Your task to perform on an android device: open a bookmark in the chrome app Image 0: 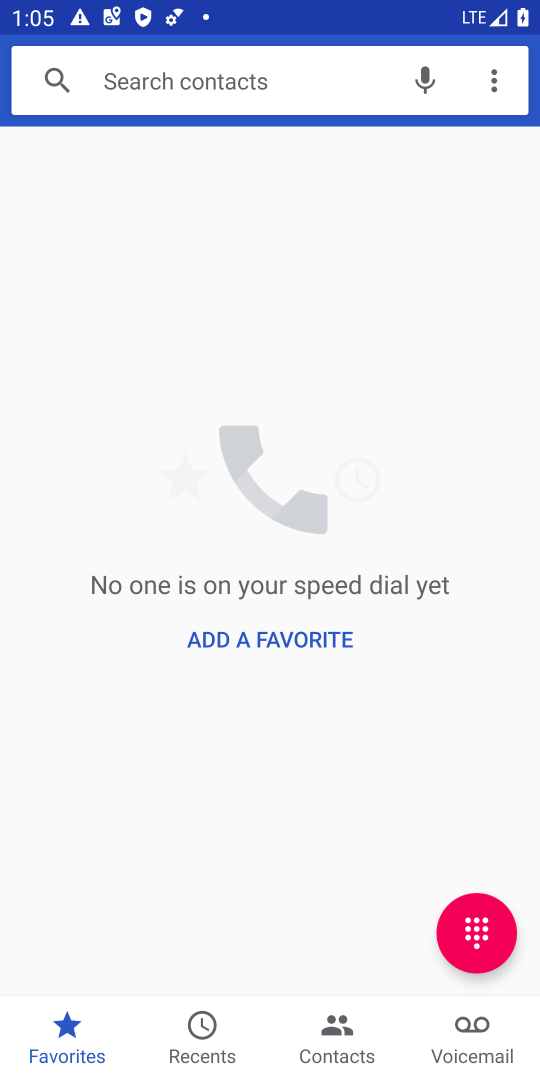
Step 0: press home button
Your task to perform on an android device: open a bookmark in the chrome app Image 1: 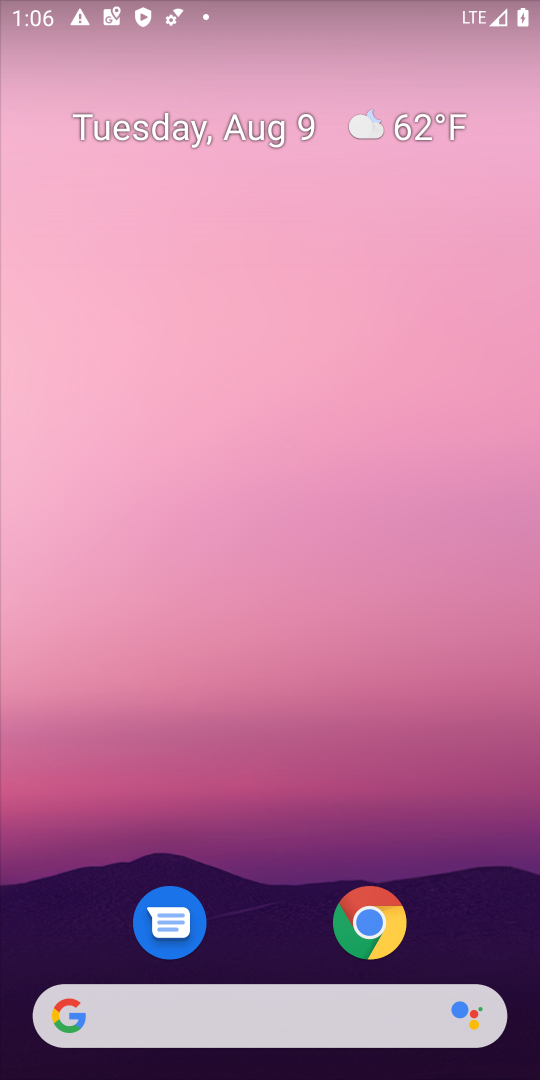
Step 1: click (388, 933)
Your task to perform on an android device: open a bookmark in the chrome app Image 2: 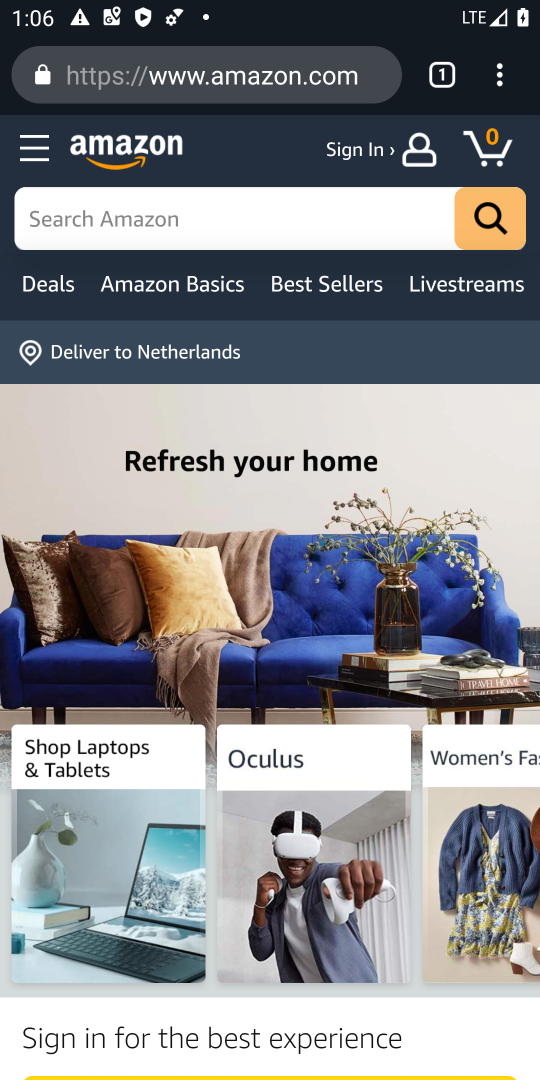
Step 2: click (499, 67)
Your task to perform on an android device: open a bookmark in the chrome app Image 3: 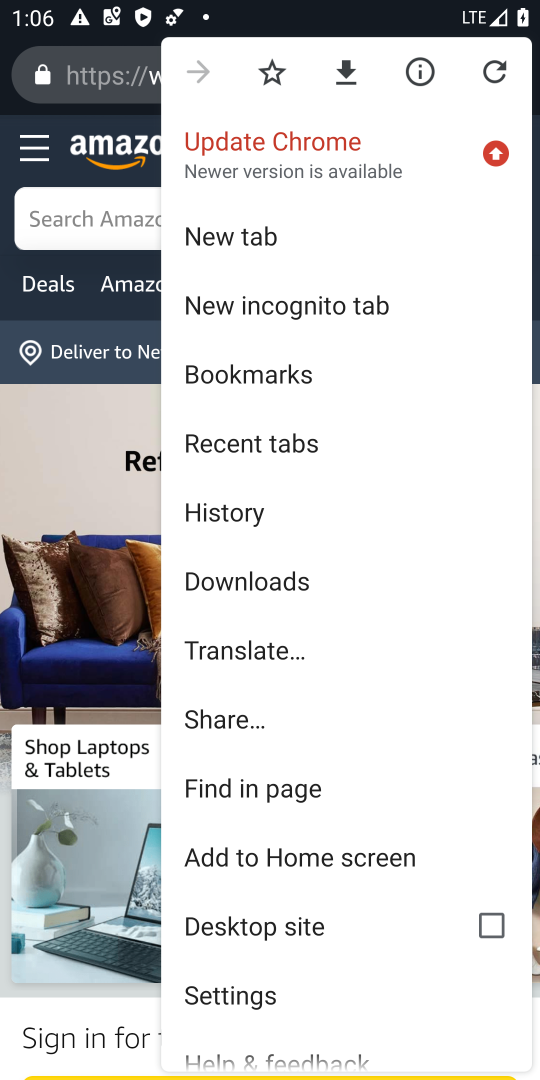
Step 3: click (291, 373)
Your task to perform on an android device: open a bookmark in the chrome app Image 4: 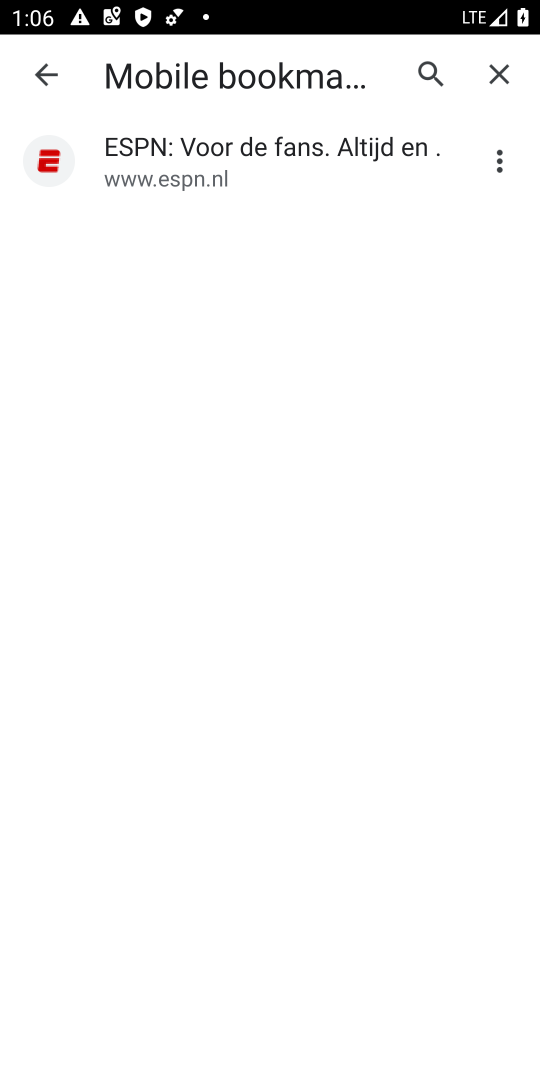
Step 4: task complete